Your task to perform on an android device: Open wifi settings Image 0: 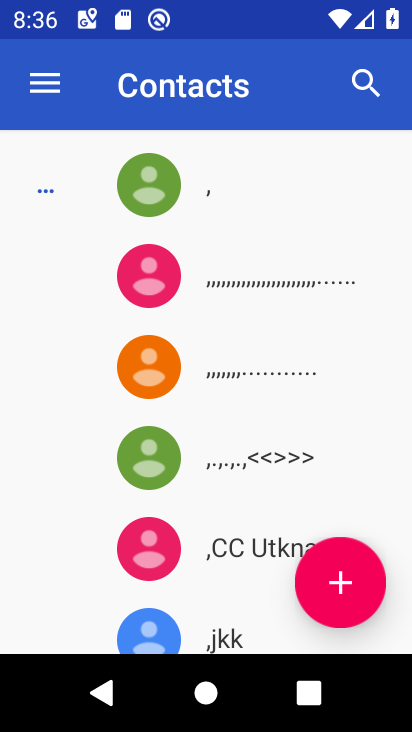
Step 0: press home button
Your task to perform on an android device: Open wifi settings Image 1: 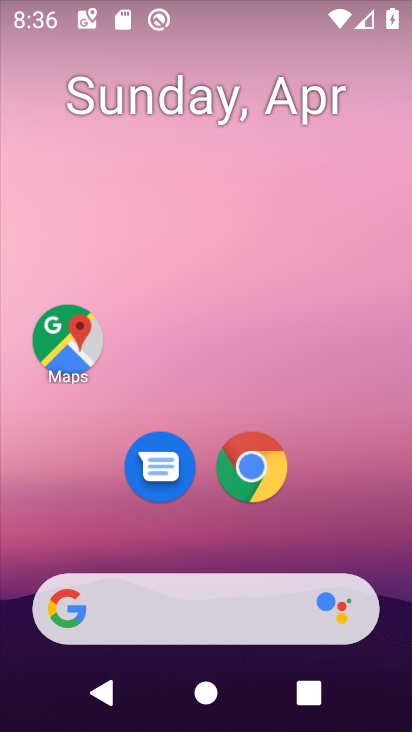
Step 1: drag from (310, 519) to (406, 32)
Your task to perform on an android device: Open wifi settings Image 2: 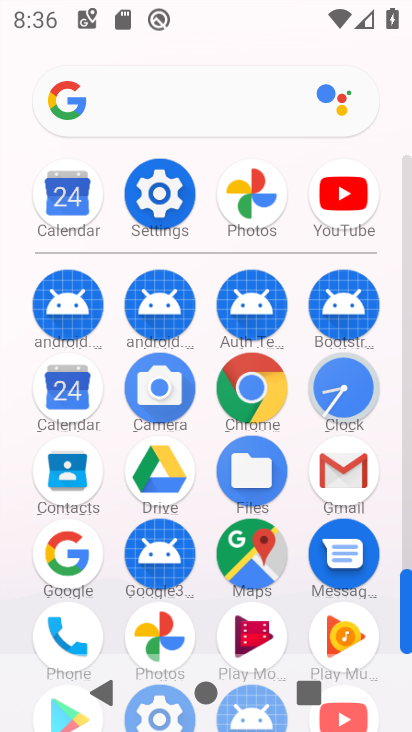
Step 2: click (157, 210)
Your task to perform on an android device: Open wifi settings Image 3: 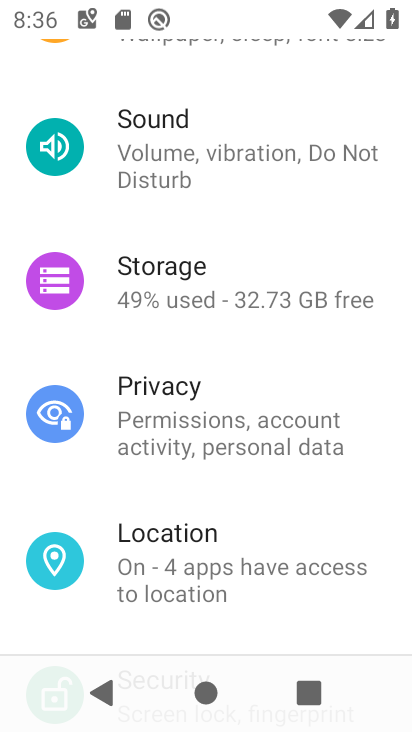
Step 3: drag from (232, 225) to (270, 329)
Your task to perform on an android device: Open wifi settings Image 4: 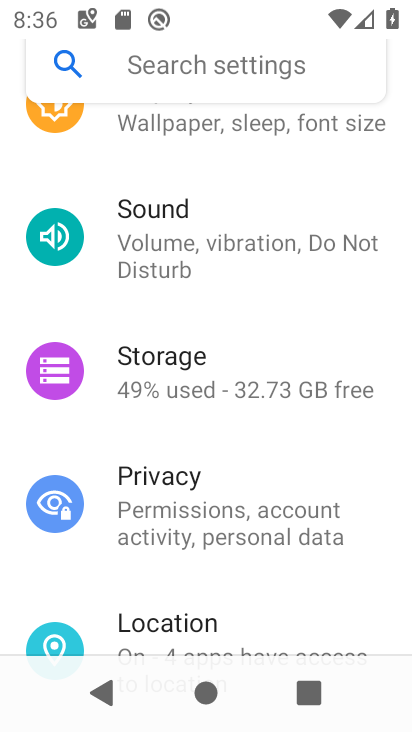
Step 4: drag from (262, 234) to (239, 361)
Your task to perform on an android device: Open wifi settings Image 5: 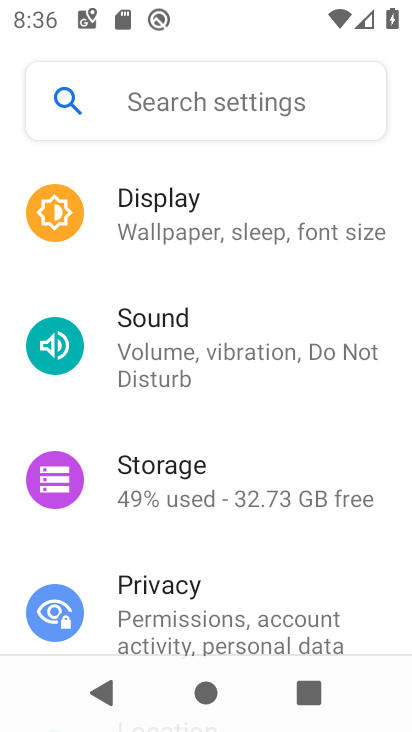
Step 5: drag from (235, 255) to (240, 356)
Your task to perform on an android device: Open wifi settings Image 6: 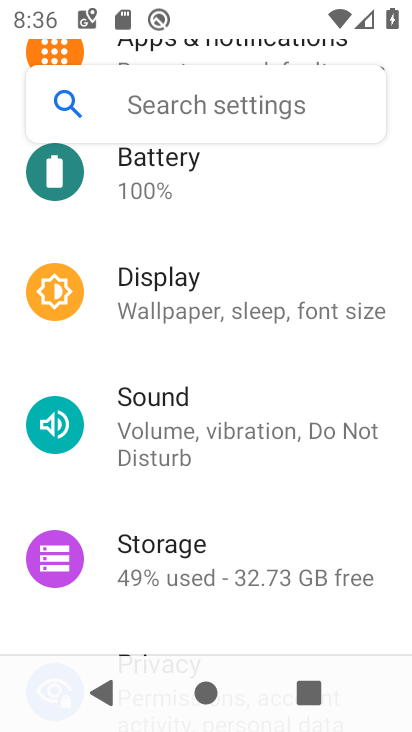
Step 6: drag from (228, 272) to (223, 420)
Your task to perform on an android device: Open wifi settings Image 7: 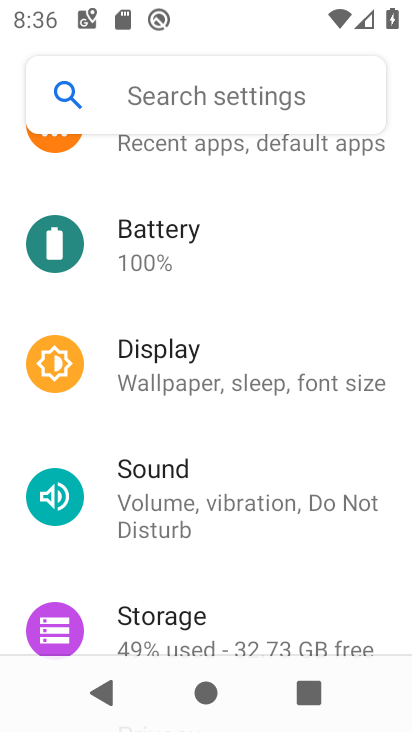
Step 7: drag from (223, 291) to (219, 382)
Your task to perform on an android device: Open wifi settings Image 8: 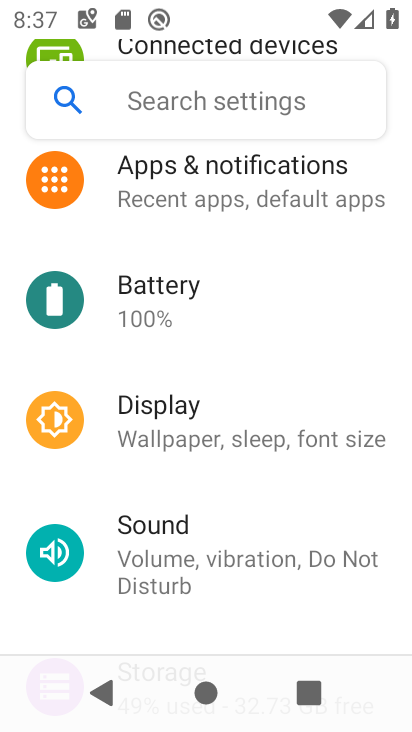
Step 8: drag from (205, 280) to (208, 414)
Your task to perform on an android device: Open wifi settings Image 9: 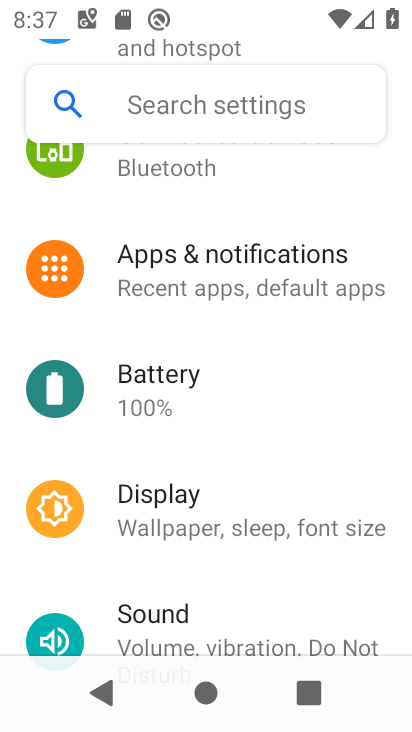
Step 9: drag from (239, 275) to (228, 401)
Your task to perform on an android device: Open wifi settings Image 10: 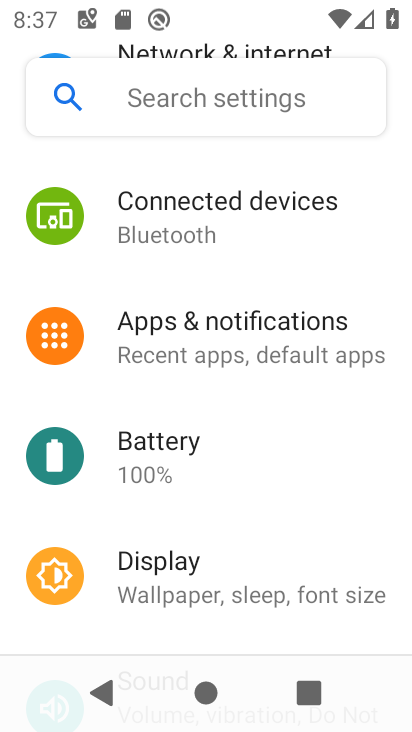
Step 10: drag from (254, 271) to (260, 395)
Your task to perform on an android device: Open wifi settings Image 11: 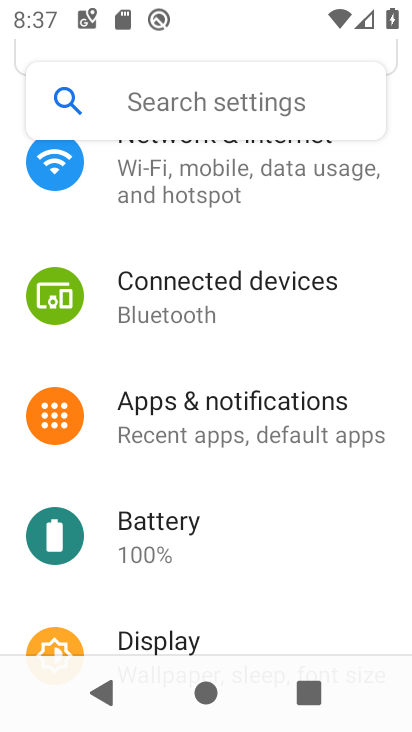
Step 11: click (274, 203)
Your task to perform on an android device: Open wifi settings Image 12: 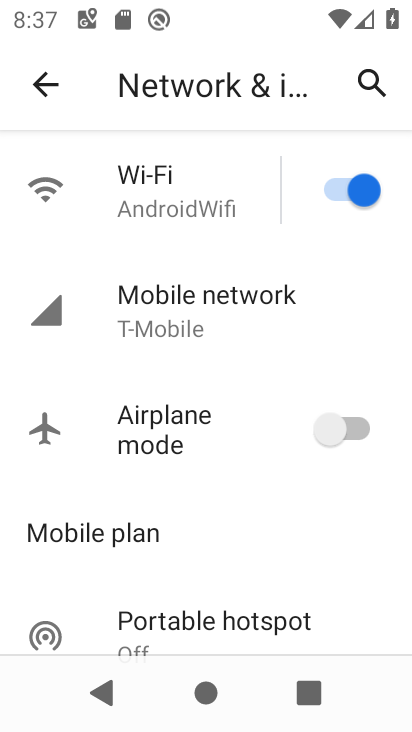
Step 12: click (90, 193)
Your task to perform on an android device: Open wifi settings Image 13: 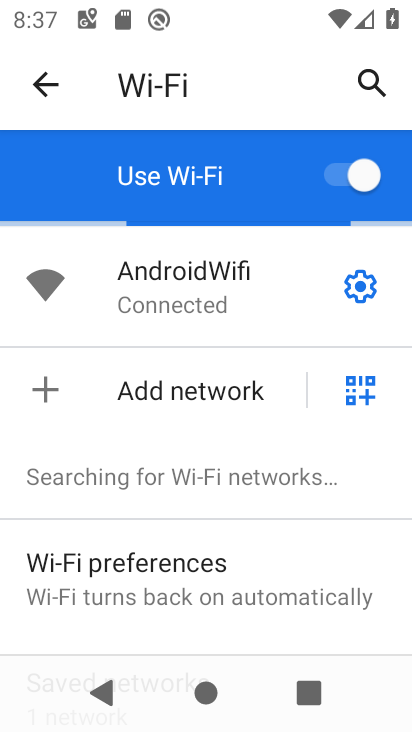
Step 13: task complete